Your task to perform on an android device: Open Youtube and go to "Your channel" Image 0: 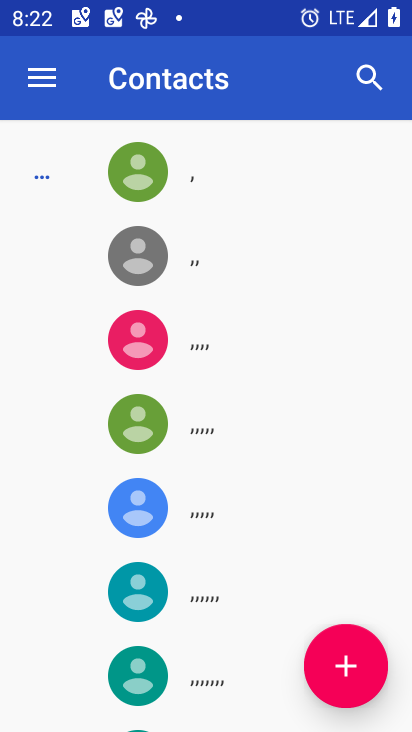
Step 0: press home button
Your task to perform on an android device: Open Youtube and go to "Your channel" Image 1: 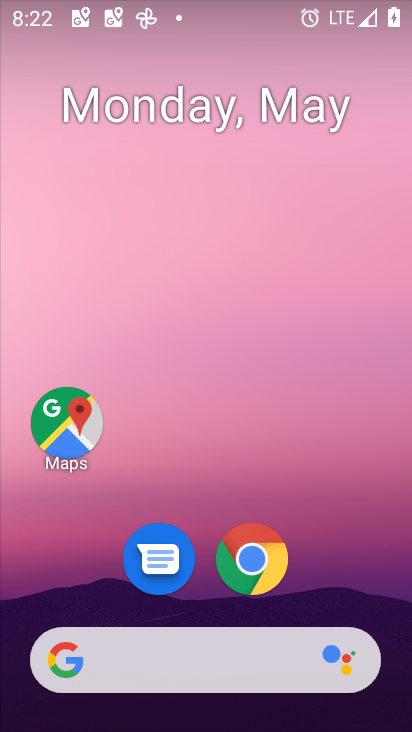
Step 1: drag from (395, 611) to (277, 33)
Your task to perform on an android device: Open Youtube and go to "Your channel" Image 2: 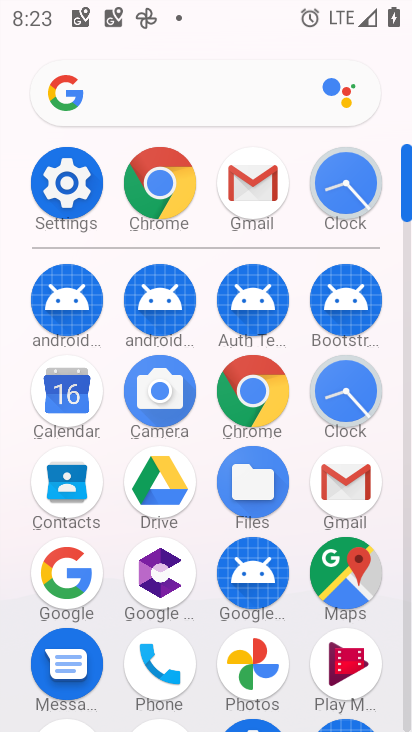
Step 2: drag from (206, 704) to (156, 167)
Your task to perform on an android device: Open Youtube and go to "Your channel" Image 3: 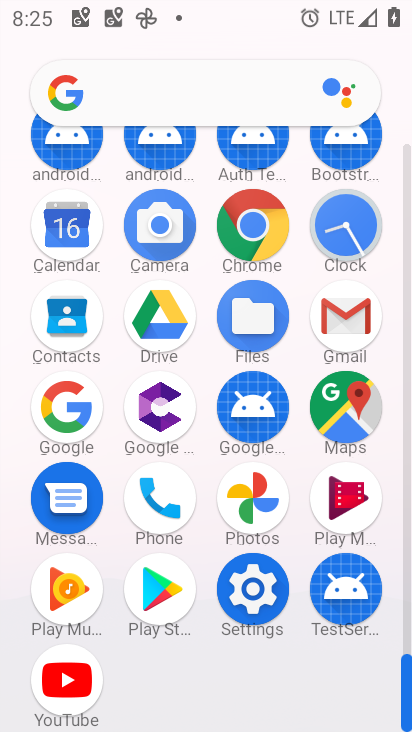
Step 3: click (59, 666)
Your task to perform on an android device: Open Youtube and go to "Your channel" Image 4: 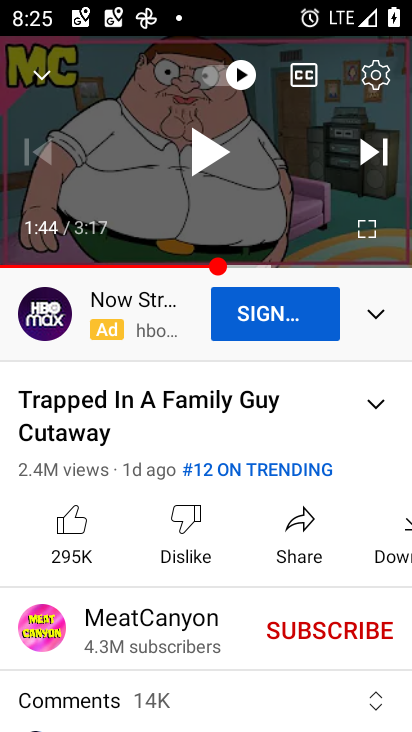
Step 4: press back button
Your task to perform on an android device: Open Youtube and go to "Your channel" Image 5: 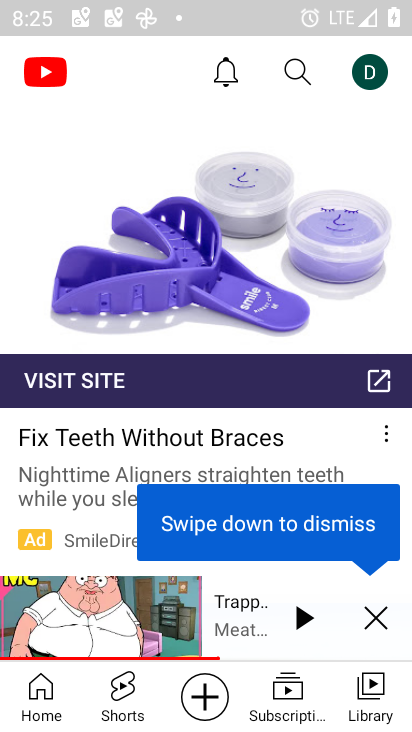
Step 5: click (375, 620)
Your task to perform on an android device: Open Youtube and go to "Your channel" Image 6: 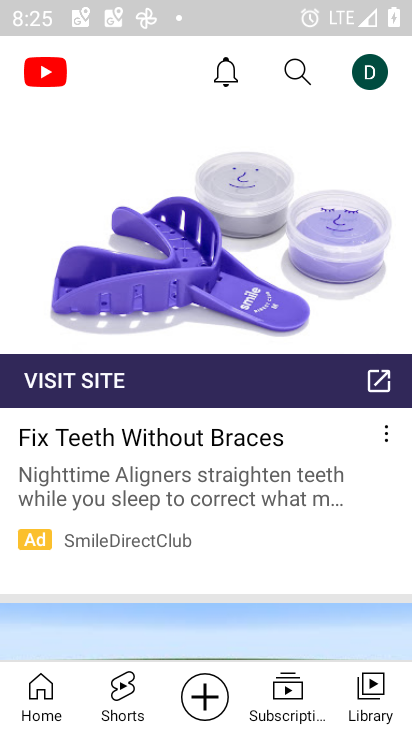
Step 6: click (370, 703)
Your task to perform on an android device: Open Youtube and go to "Your channel" Image 7: 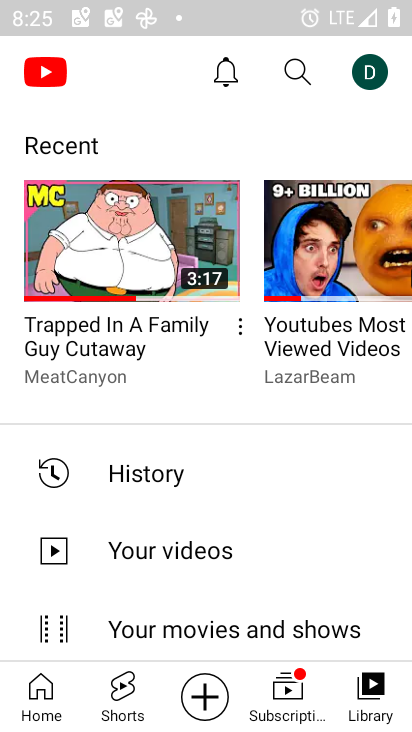
Step 7: click (370, 68)
Your task to perform on an android device: Open Youtube and go to "Your channel" Image 8: 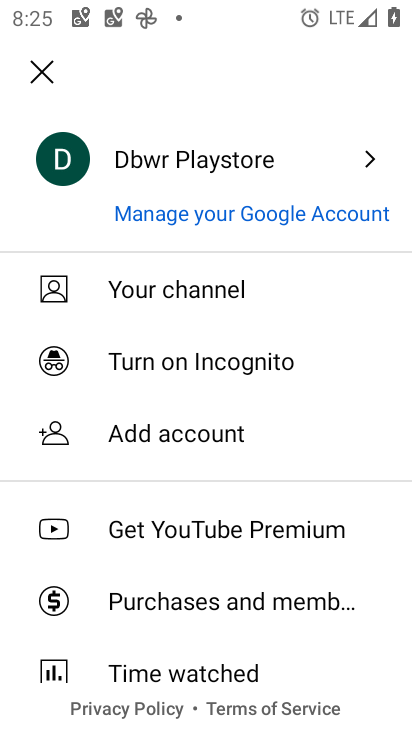
Step 8: click (229, 292)
Your task to perform on an android device: Open Youtube and go to "Your channel" Image 9: 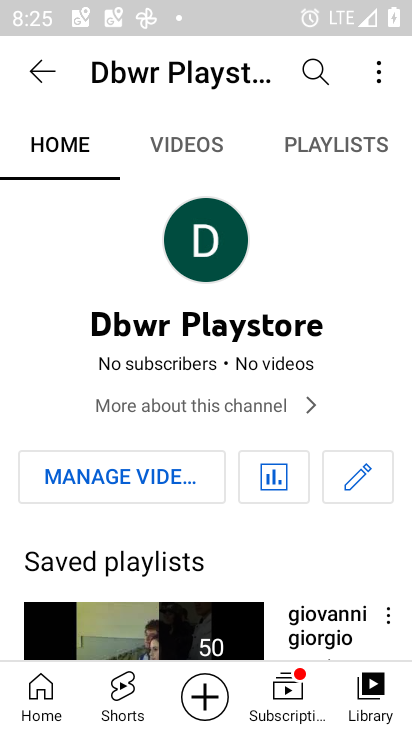
Step 9: task complete